Your task to perform on an android device: change timer sound Image 0: 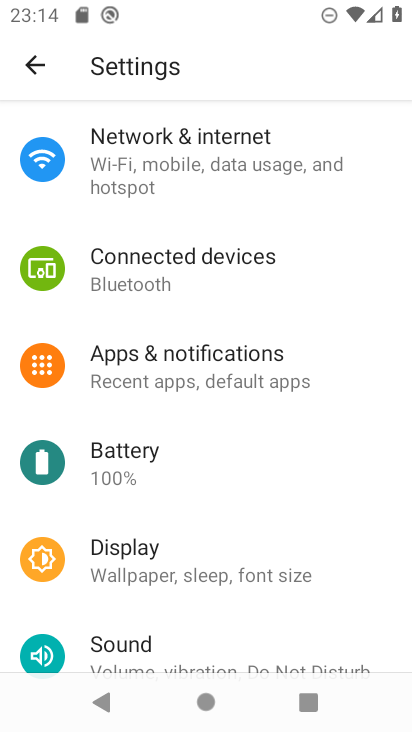
Step 0: press home button
Your task to perform on an android device: change timer sound Image 1: 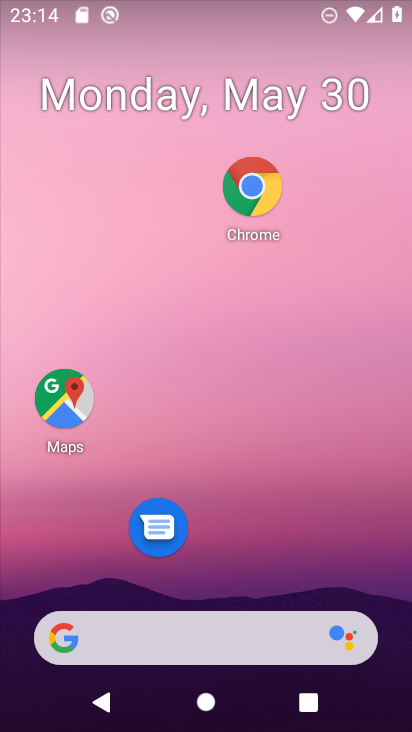
Step 1: drag from (291, 544) to (341, 223)
Your task to perform on an android device: change timer sound Image 2: 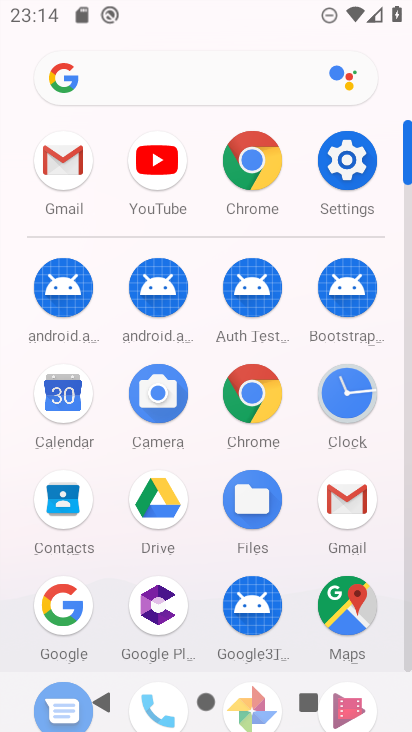
Step 2: click (341, 377)
Your task to perform on an android device: change timer sound Image 3: 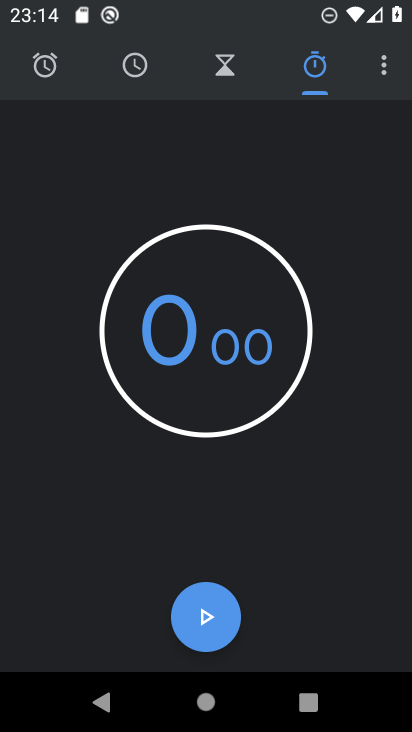
Step 3: click (383, 64)
Your task to perform on an android device: change timer sound Image 4: 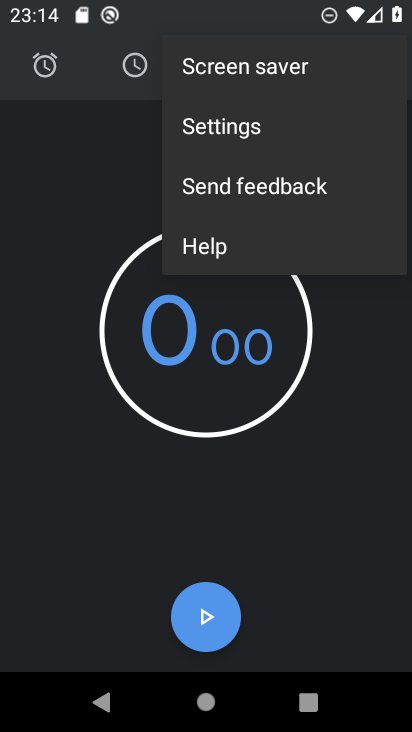
Step 4: click (259, 124)
Your task to perform on an android device: change timer sound Image 5: 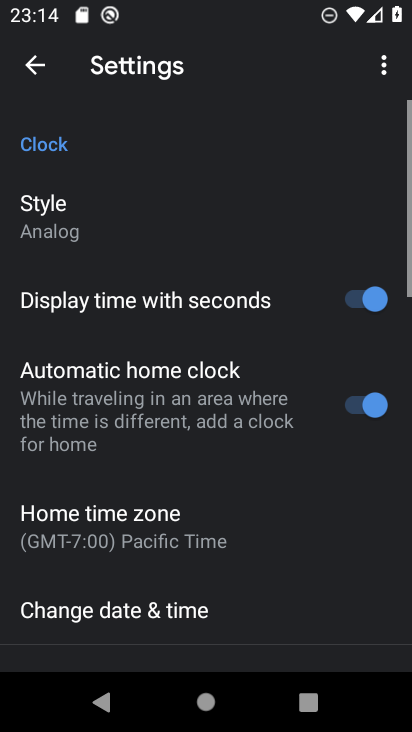
Step 5: drag from (231, 557) to (292, 214)
Your task to perform on an android device: change timer sound Image 6: 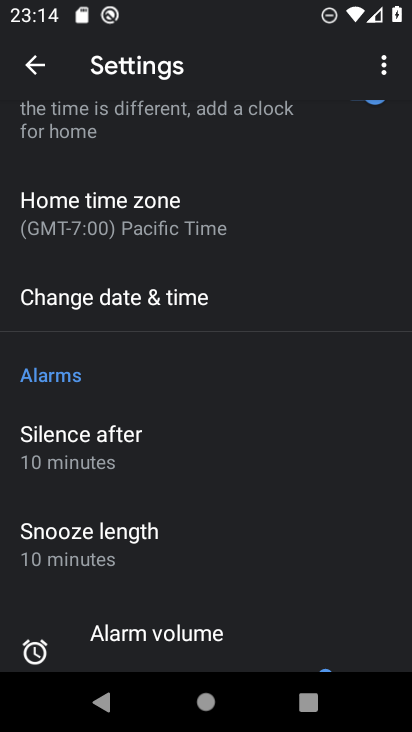
Step 6: drag from (187, 552) to (276, 264)
Your task to perform on an android device: change timer sound Image 7: 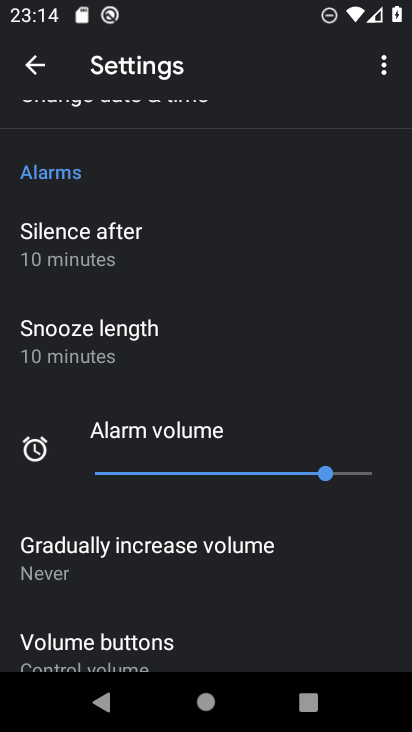
Step 7: drag from (197, 493) to (253, 190)
Your task to perform on an android device: change timer sound Image 8: 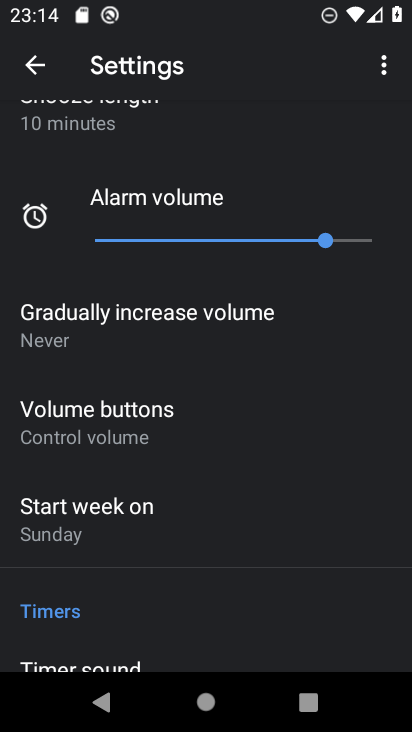
Step 8: drag from (123, 513) to (202, 150)
Your task to perform on an android device: change timer sound Image 9: 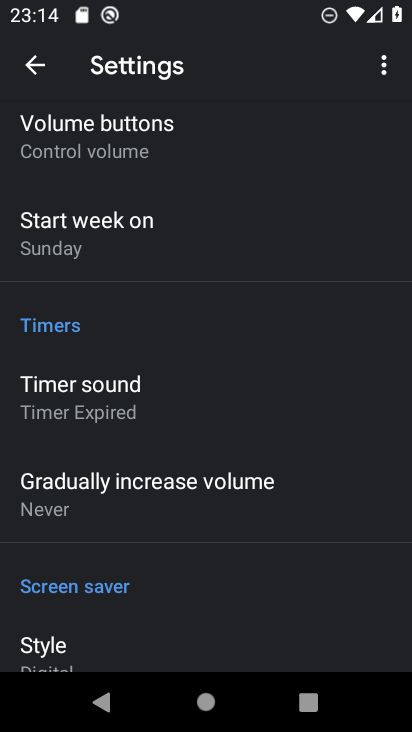
Step 9: click (103, 398)
Your task to perform on an android device: change timer sound Image 10: 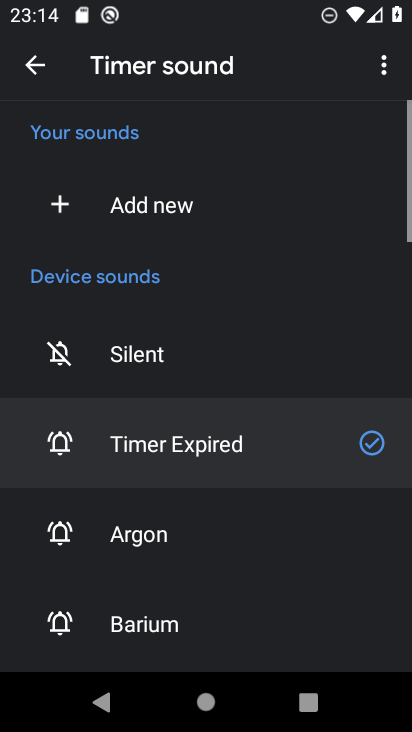
Step 10: drag from (222, 554) to (274, 216)
Your task to perform on an android device: change timer sound Image 11: 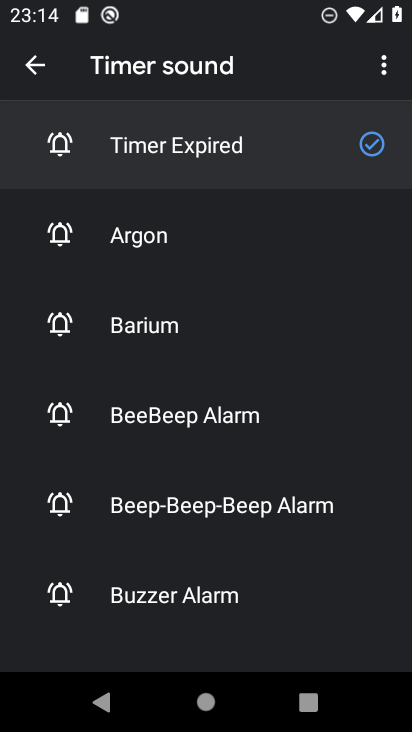
Step 11: click (162, 513)
Your task to perform on an android device: change timer sound Image 12: 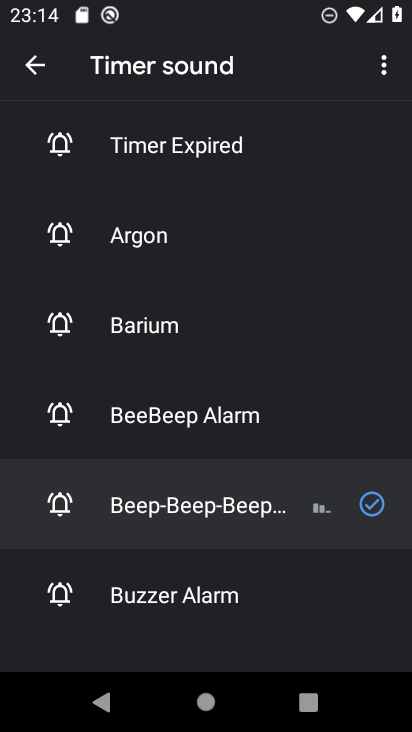
Step 12: task complete